Your task to perform on an android device: move a message to another label in the gmail app Image 0: 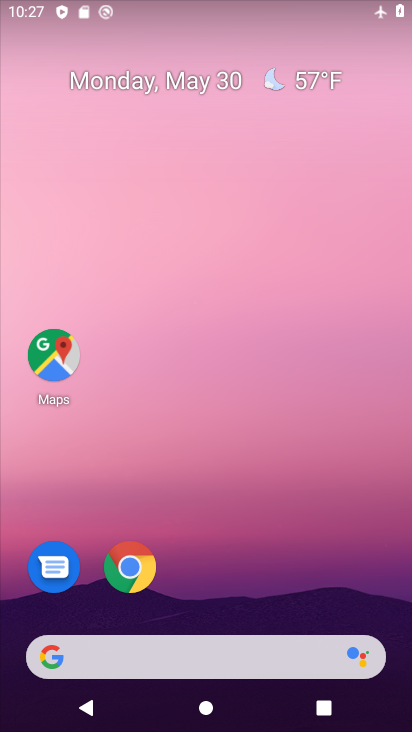
Step 0: drag from (219, 607) to (226, 200)
Your task to perform on an android device: move a message to another label in the gmail app Image 1: 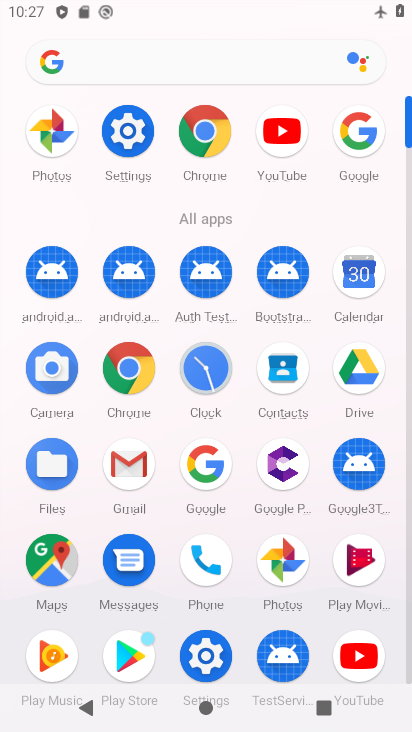
Step 1: click (134, 457)
Your task to perform on an android device: move a message to another label in the gmail app Image 2: 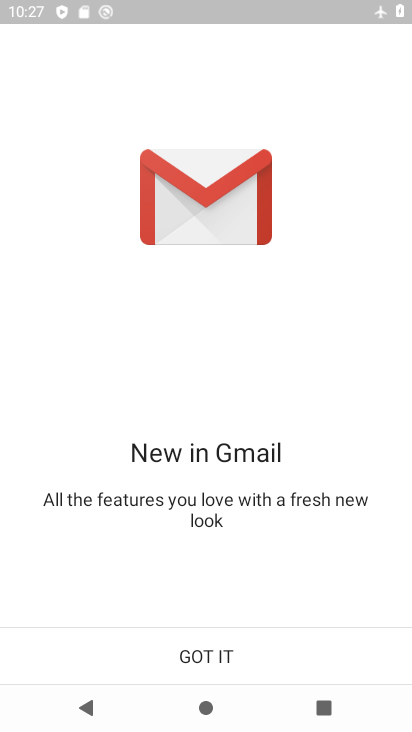
Step 2: click (135, 630)
Your task to perform on an android device: move a message to another label in the gmail app Image 3: 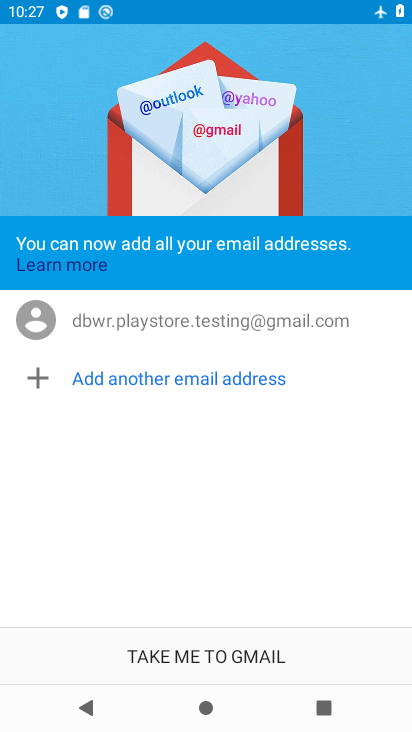
Step 3: click (144, 662)
Your task to perform on an android device: move a message to another label in the gmail app Image 4: 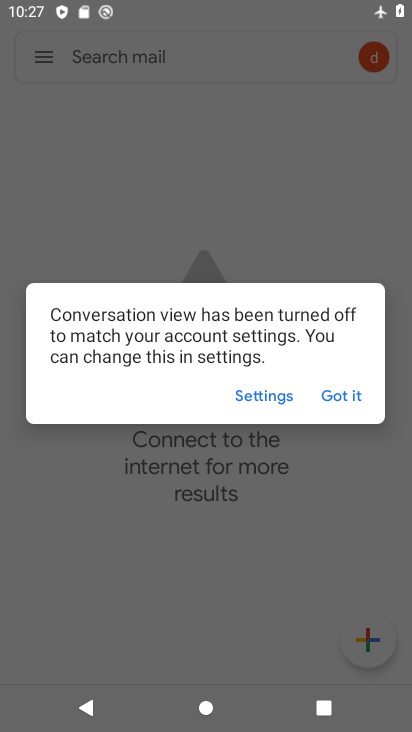
Step 4: click (335, 411)
Your task to perform on an android device: move a message to another label in the gmail app Image 5: 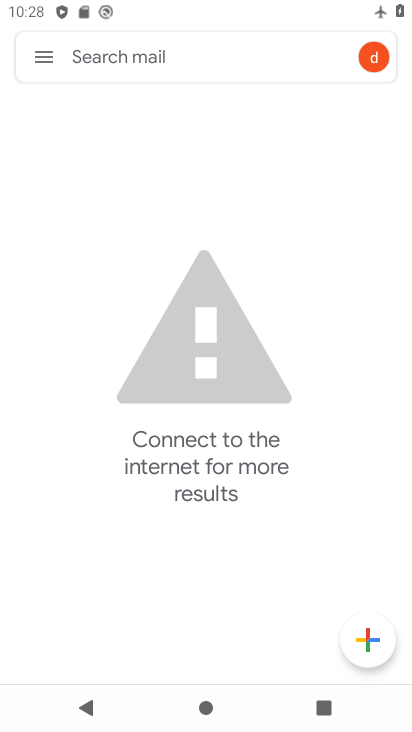
Step 5: click (42, 47)
Your task to perform on an android device: move a message to another label in the gmail app Image 6: 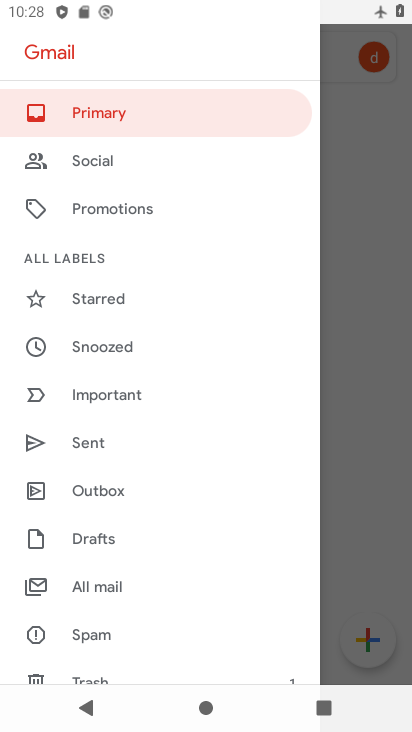
Step 6: click (107, 575)
Your task to perform on an android device: move a message to another label in the gmail app Image 7: 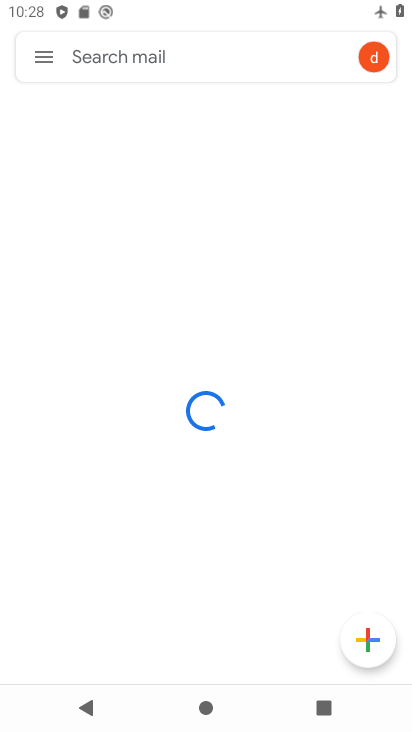
Step 7: task complete